Your task to perform on an android device: Open Wikipedia Image 0: 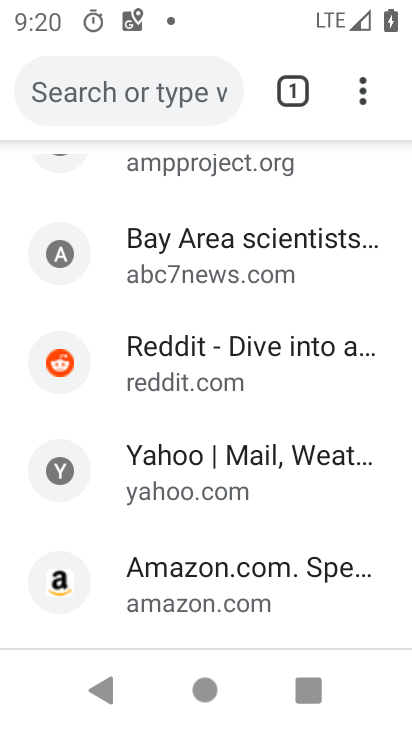
Step 0: drag from (259, 507) to (358, 208)
Your task to perform on an android device: Open Wikipedia Image 1: 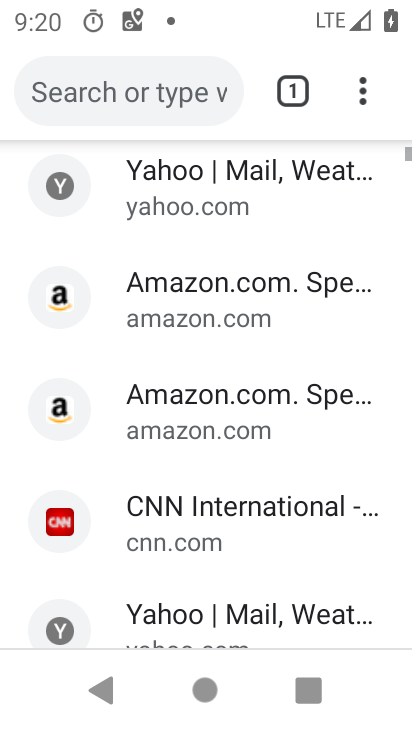
Step 1: click (305, 97)
Your task to perform on an android device: Open Wikipedia Image 2: 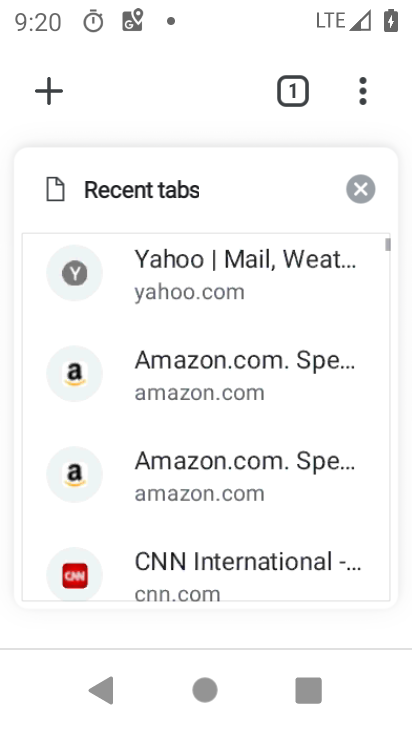
Step 2: click (294, 88)
Your task to perform on an android device: Open Wikipedia Image 3: 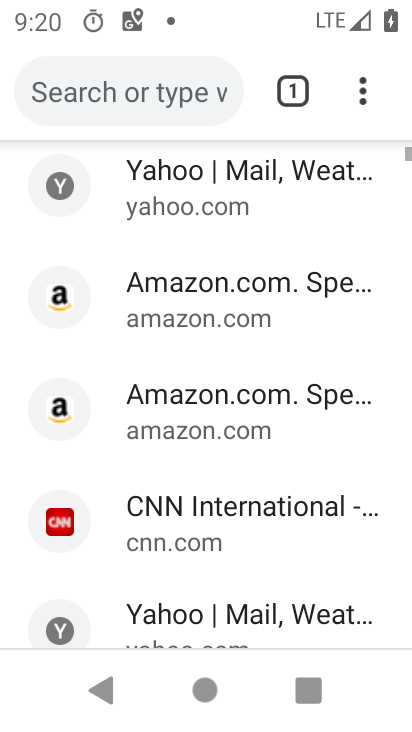
Step 3: click (293, 88)
Your task to perform on an android device: Open Wikipedia Image 4: 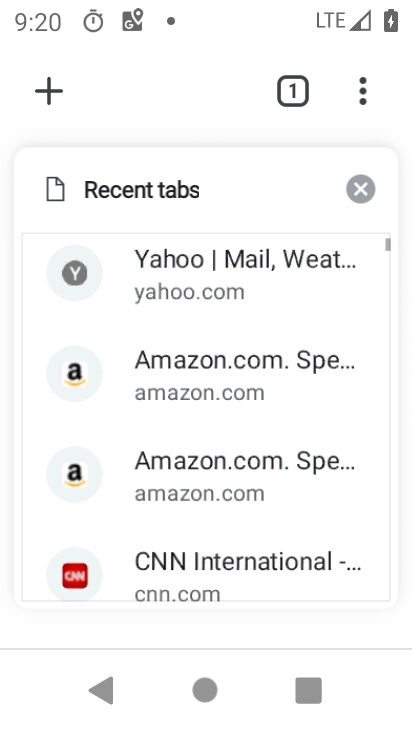
Step 4: click (361, 187)
Your task to perform on an android device: Open Wikipedia Image 5: 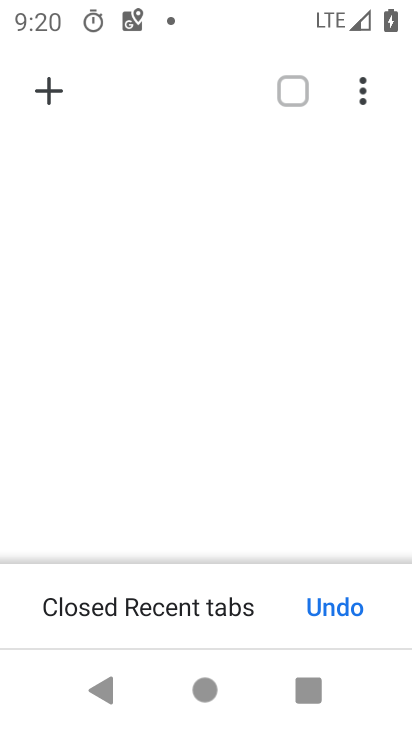
Step 5: click (43, 91)
Your task to perform on an android device: Open Wikipedia Image 6: 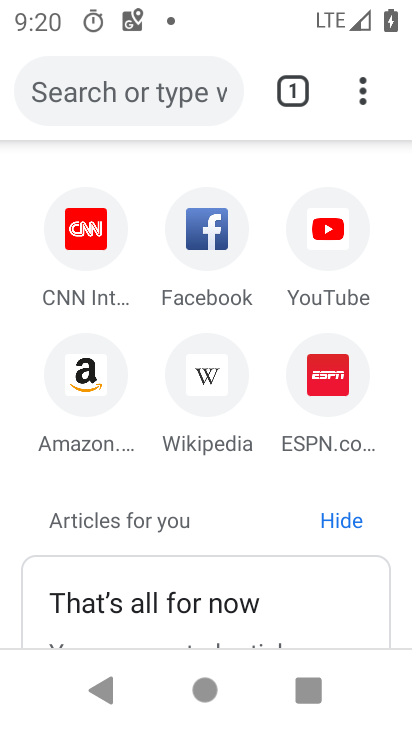
Step 6: click (210, 372)
Your task to perform on an android device: Open Wikipedia Image 7: 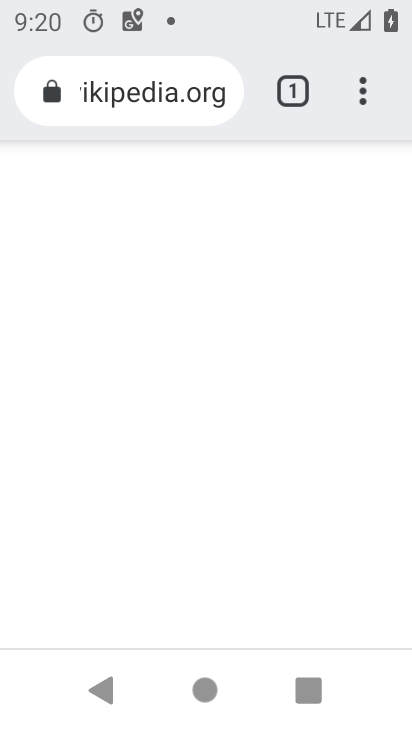
Step 7: task complete